Your task to perform on an android device: Open accessibility settings Image 0: 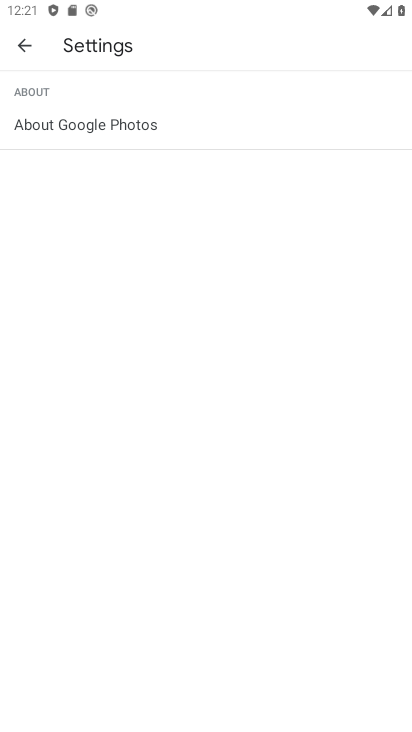
Step 0: press home button
Your task to perform on an android device: Open accessibility settings Image 1: 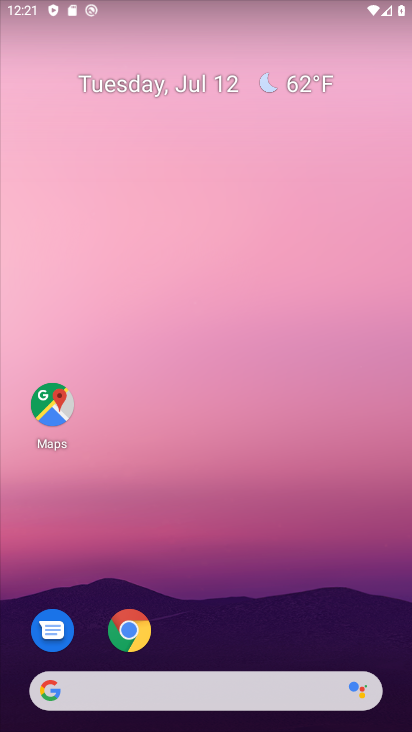
Step 1: drag from (201, 562) to (186, 93)
Your task to perform on an android device: Open accessibility settings Image 2: 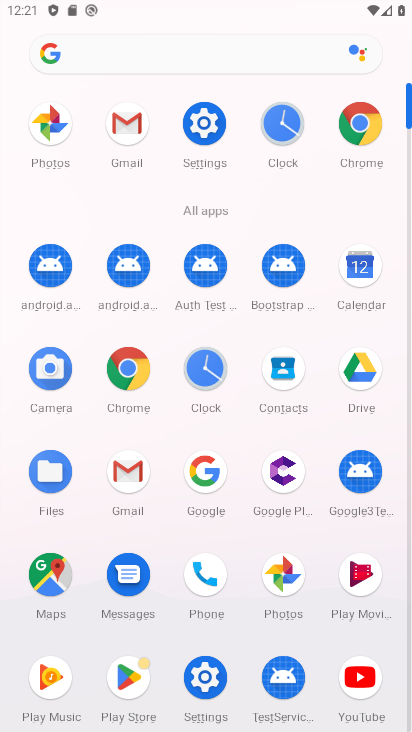
Step 2: click (203, 124)
Your task to perform on an android device: Open accessibility settings Image 3: 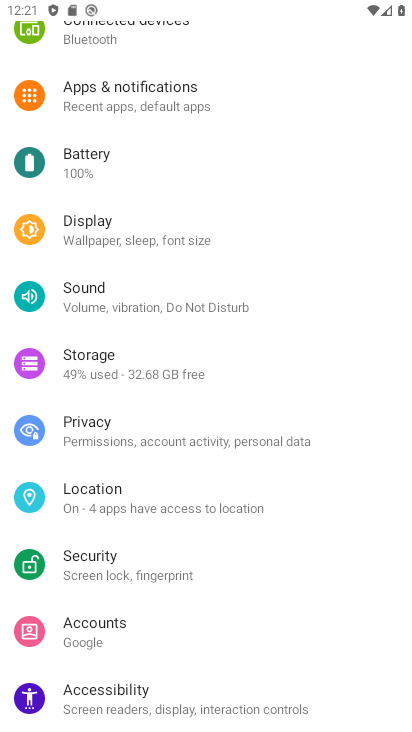
Step 3: click (100, 689)
Your task to perform on an android device: Open accessibility settings Image 4: 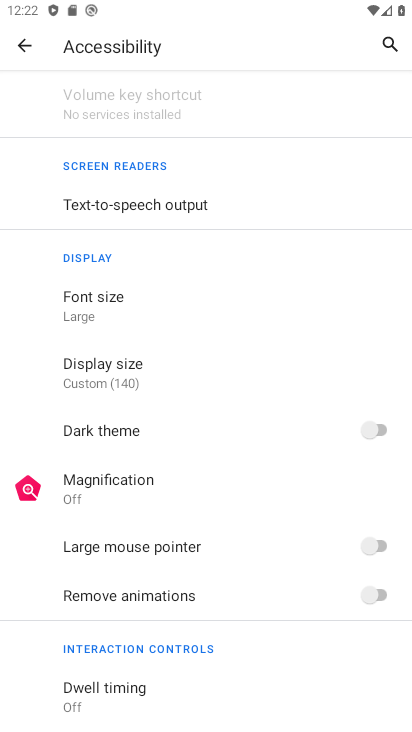
Step 4: task complete